Your task to perform on an android device: delete the emails in spam in the gmail app Image 0: 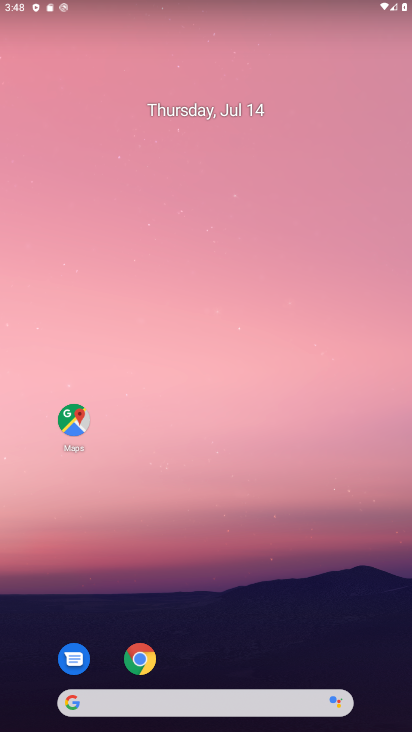
Step 0: drag from (263, 672) to (147, 202)
Your task to perform on an android device: delete the emails in spam in the gmail app Image 1: 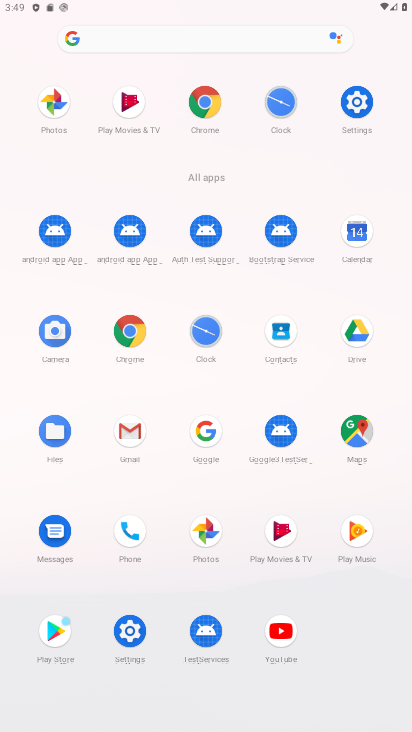
Step 1: click (135, 425)
Your task to perform on an android device: delete the emails in spam in the gmail app Image 2: 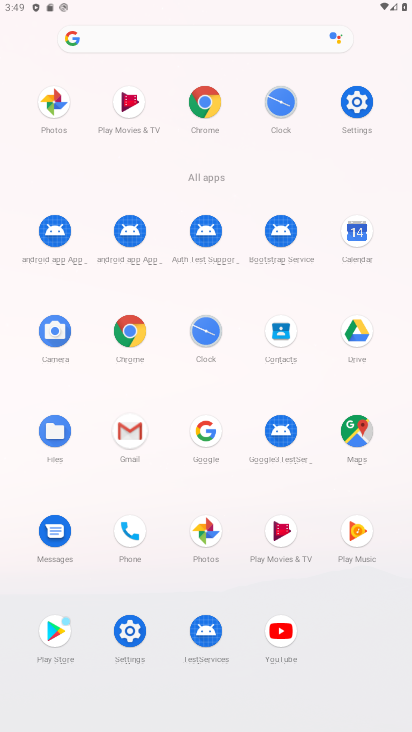
Step 2: click (131, 418)
Your task to perform on an android device: delete the emails in spam in the gmail app Image 3: 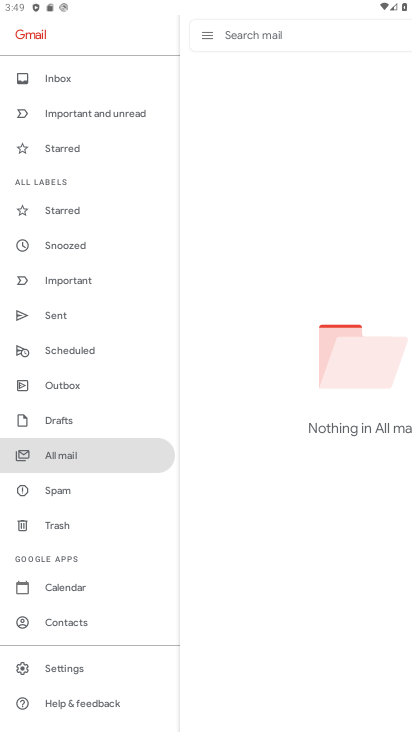
Step 3: click (53, 493)
Your task to perform on an android device: delete the emails in spam in the gmail app Image 4: 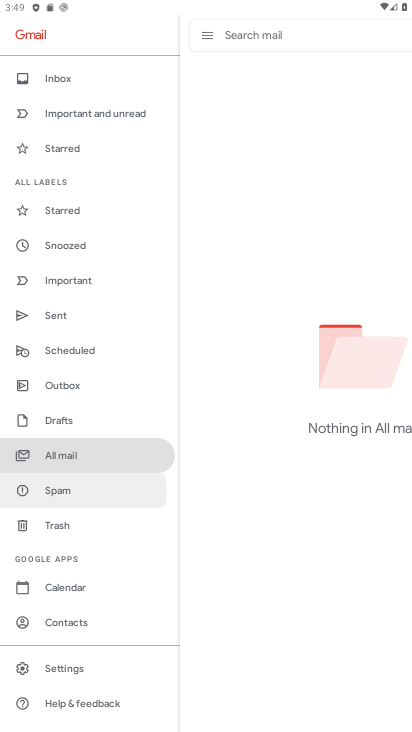
Step 4: click (52, 492)
Your task to perform on an android device: delete the emails in spam in the gmail app Image 5: 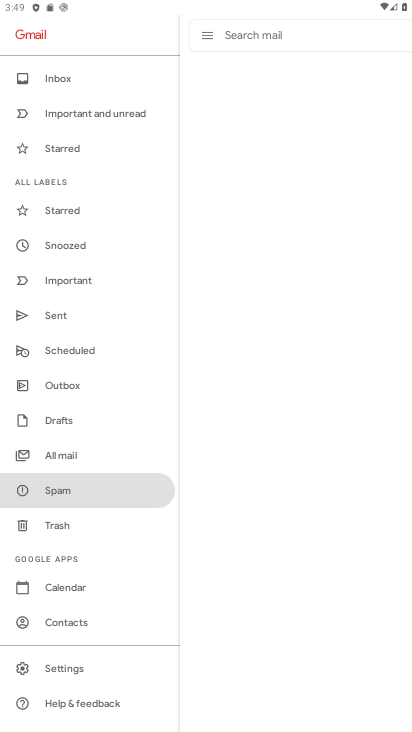
Step 5: click (52, 492)
Your task to perform on an android device: delete the emails in spam in the gmail app Image 6: 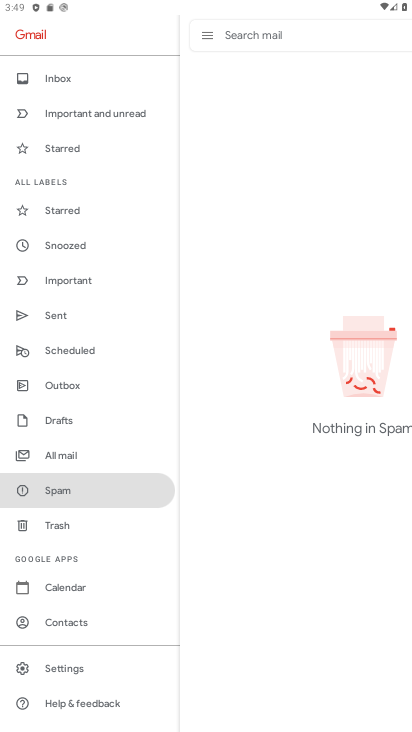
Step 6: task complete